Your task to perform on an android device: When is my next appointment? Image 0: 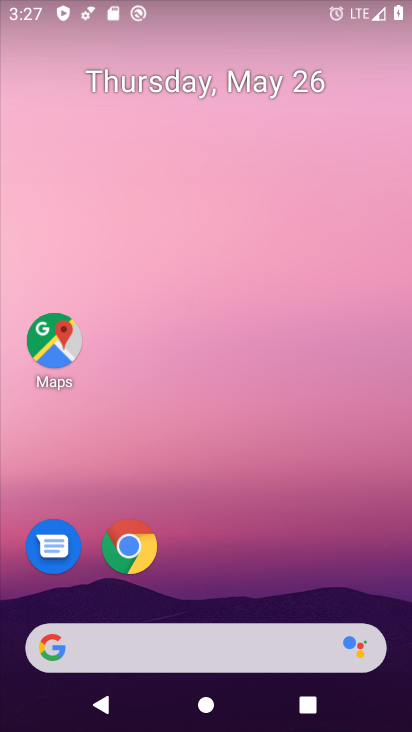
Step 0: drag from (258, 598) to (258, 72)
Your task to perform on an android device: When is my next appointment? Image 1: 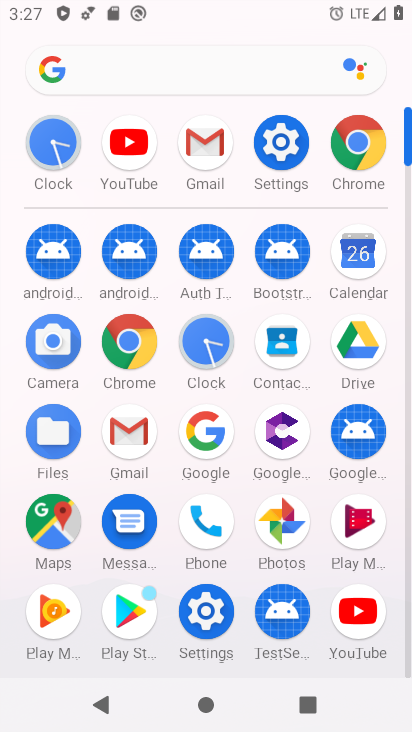
Step 1: click (357, 251)
Your task to perform on an android device: When is my next appointment? Image 2: 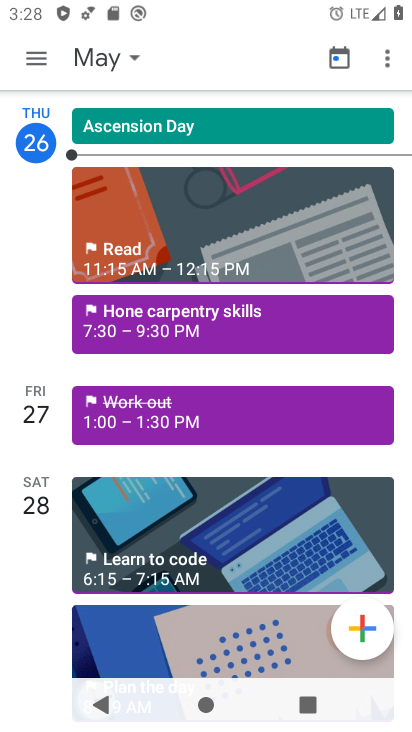
Step 2: task complete